Your task to perform on an android device: toggle sleep mode Image 0: 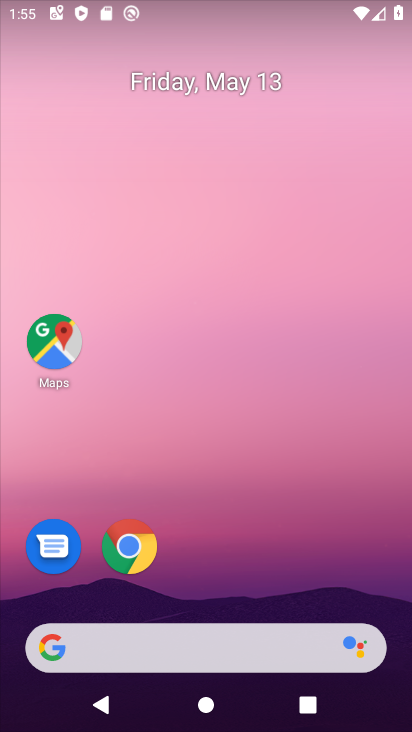
Step 0: drag from (267, 631) to (319, 68)
Your task to perform on an android device: toggle sleep mode Image 1: 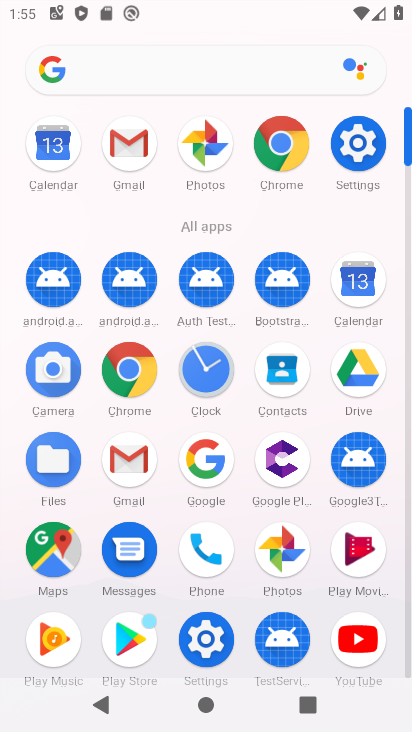
Step 1: click (350, 149)
Your task to perform on an android device: toggle sleep mode Image 2: 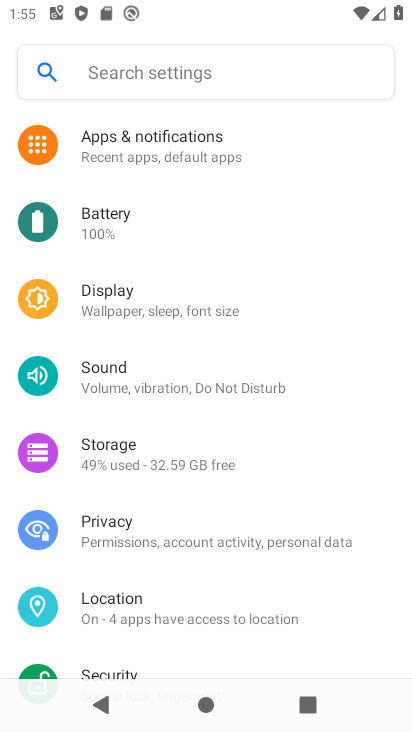
Step 2: click (164, 306)
Your task to perform on an android device: toggle sleep mode Image 3: 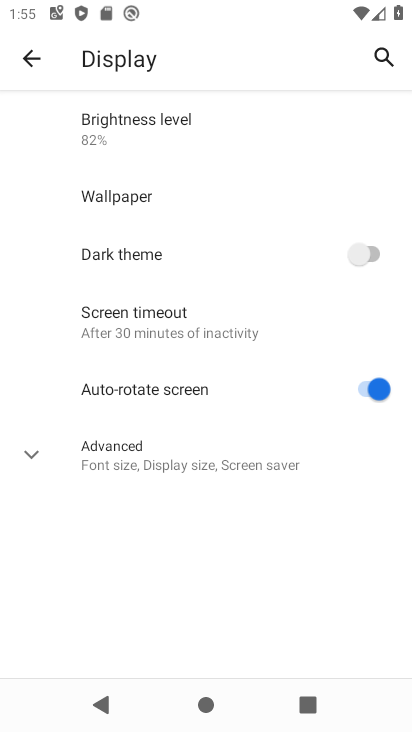
Step 3: click (188, 332)
Your task to perform on an android device: toggle sleep mode Image 4: 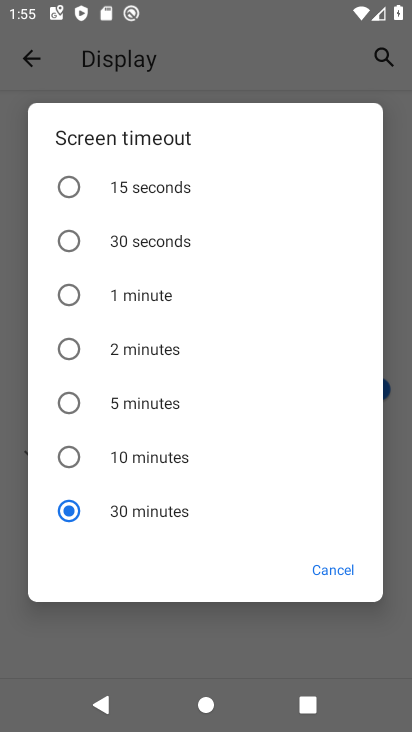
Step 4: click (142, 453)
Your task to perform on an android device: toggle sleep mode Image 5: 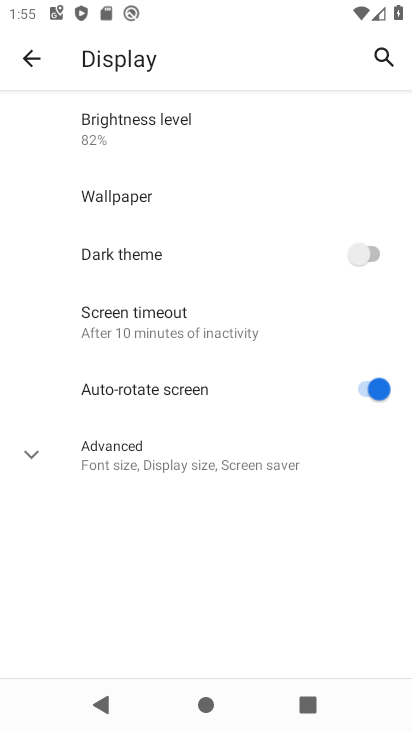
Step 5: task complete